Your task to perform on an android device: Open accessibility settings Image 0: 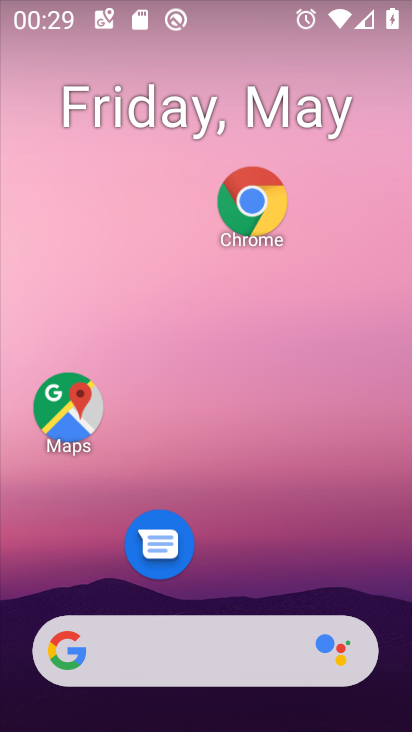
Step 0: press home button
Your task to perform on an android device: Open accessibility settings Image 1: 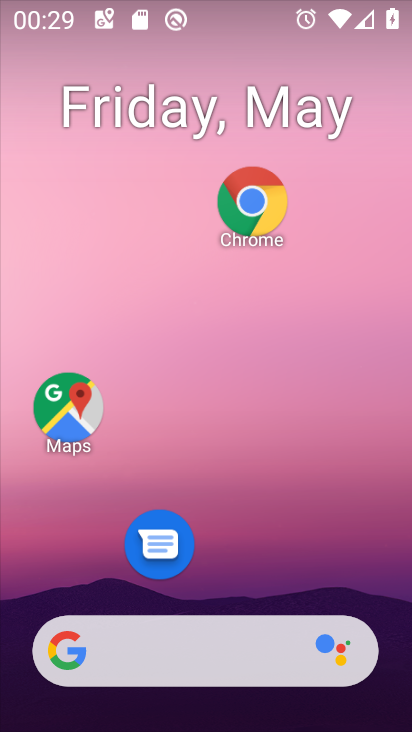
Step 1: drag from (221, 575) to (231, 42)
Your task to perform on an android device: Open accessibility settings Image 2: 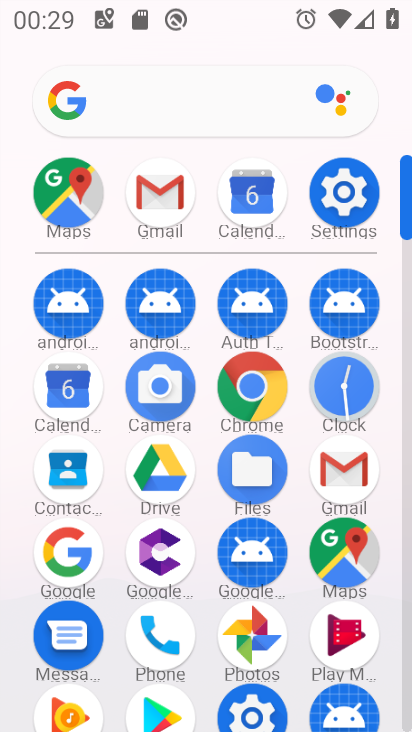
Step 2: click (344, 187)
Your task to perform on an android device: Open accessibility settings Image 3: 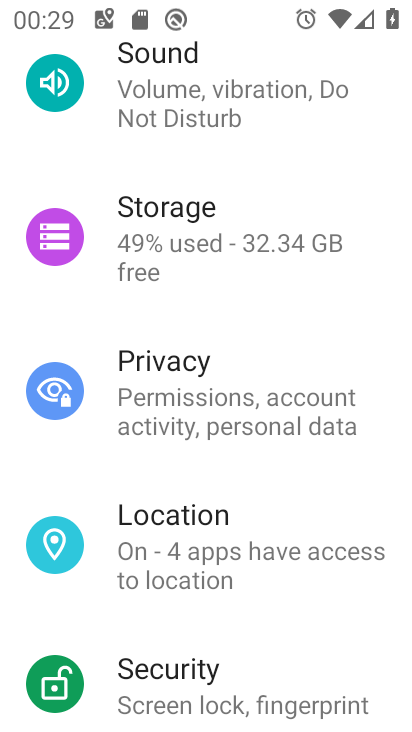
Step 3: drag from (239, 628) to (249, 155)
Your task to perform on an android device: Open accessibility settings Image 4: 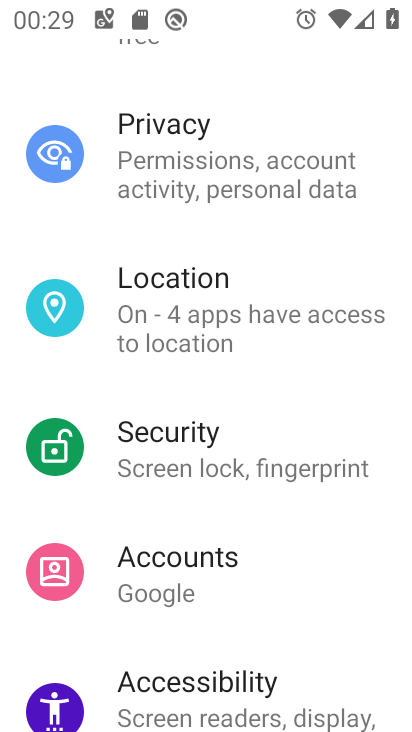
Step 4: click (293, 681)
Your task to perform on an android device: Open accessibility settings Image 5: 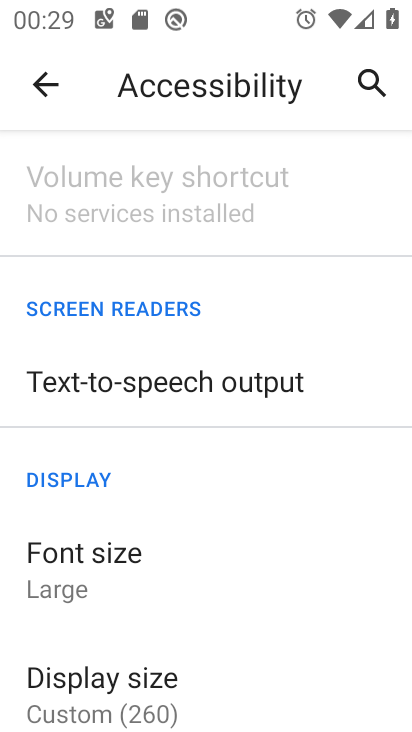
Step 5: task complete